Your task to perform on an android device: Open the Play Movies app and select the watchlist tab. Image 0: 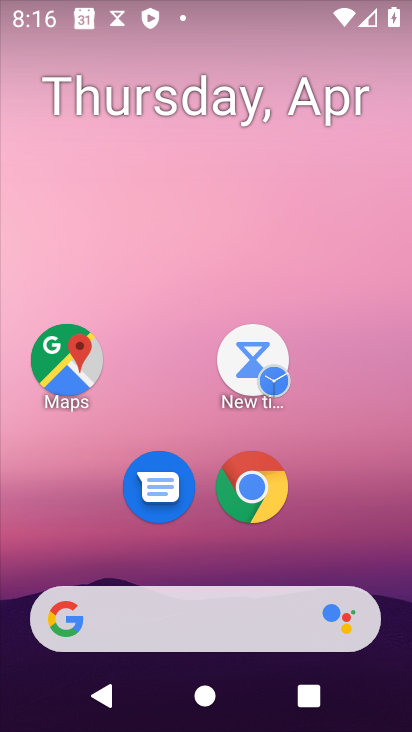
Step 0: drag from (329, 178) to (330, 91)
Your task to perform on an android device: Open the Play Movies app and select the watchlist tab. Image 1: 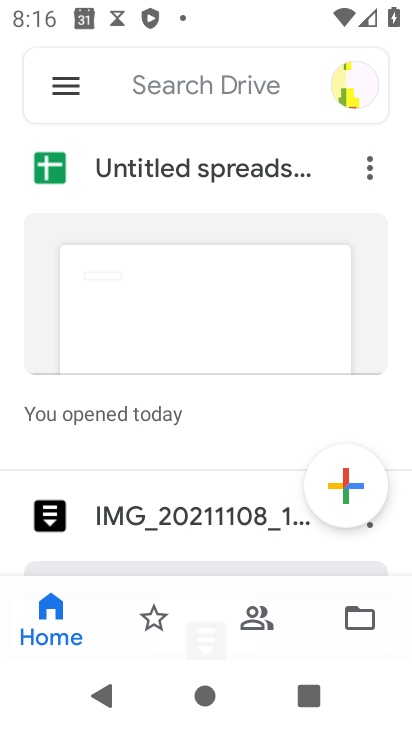
Step 1: press home button
Your task to perform on an android device: Open the Play Movies app and select the watchlist tab. Image 2: 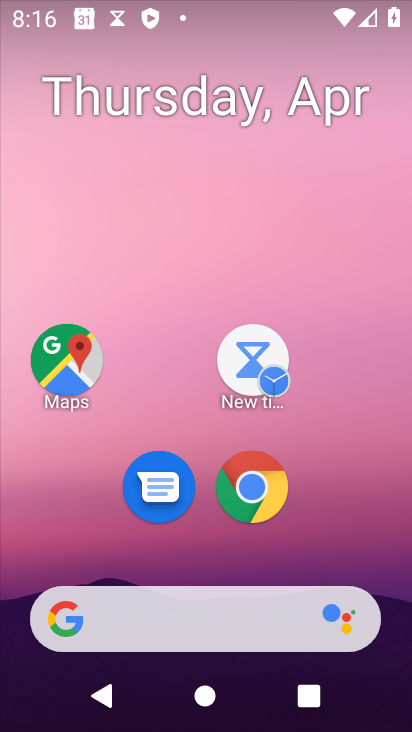
Step 2: drag from (326, 533) to (294, 171)
Your task to perform on an android device: Open the Play Movies app and select the watchlist tab. Image 3: 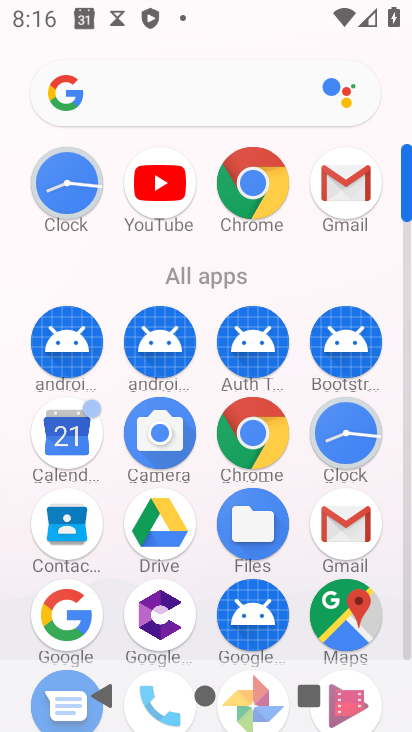
Step 3: drag from (207, 614) to (207, 281)
Your task to perform on an android device: Open the Play Movies app and select the watchlist tab. Image 4: 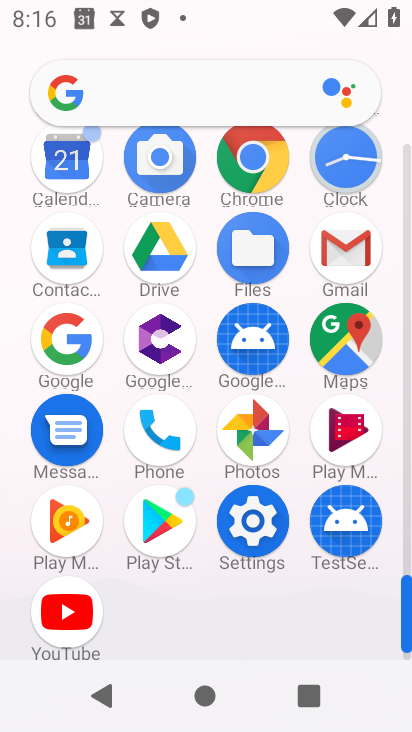
Step 4: click (353, 418)
Your task to perform on an android device: Open the Play Movies app and select the watchlist tab. Image 5: 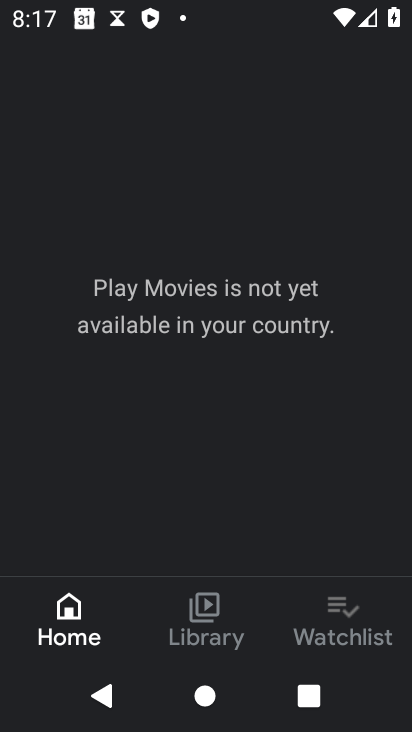
Step 5: click (338, 614)
Your task to perform on an android device: Open the Play Movies app and select the watchlist tab. Image 6: 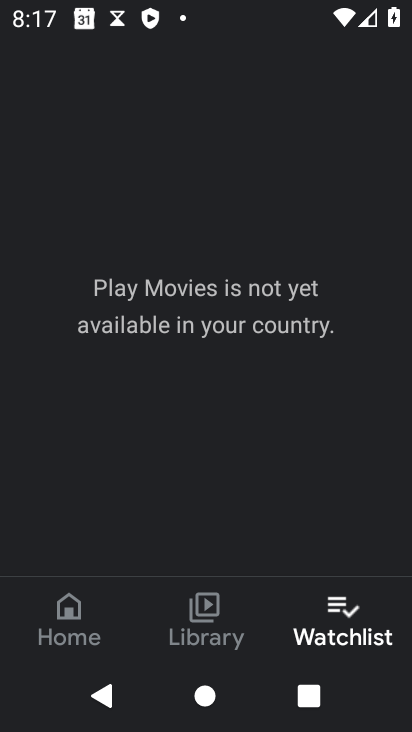
Step 6: task complete